Your task to perform on an android device: turn off smart reply in the gmail app Image 0: 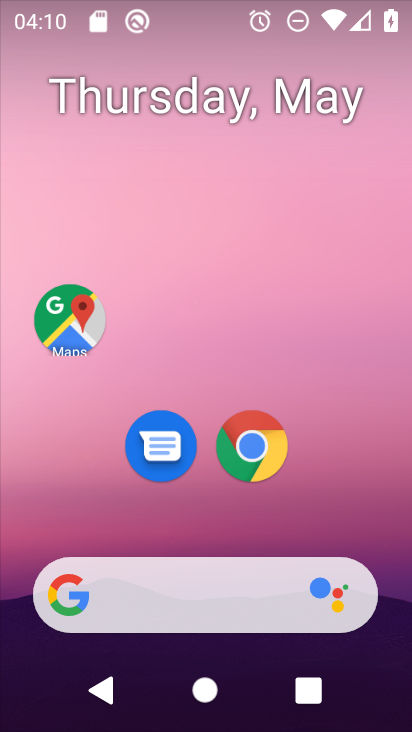
Step 0: drag from (371, 550) to (347, 4)
Your task to perform on an android device: turn off smart reply in the gmail app Image 1: 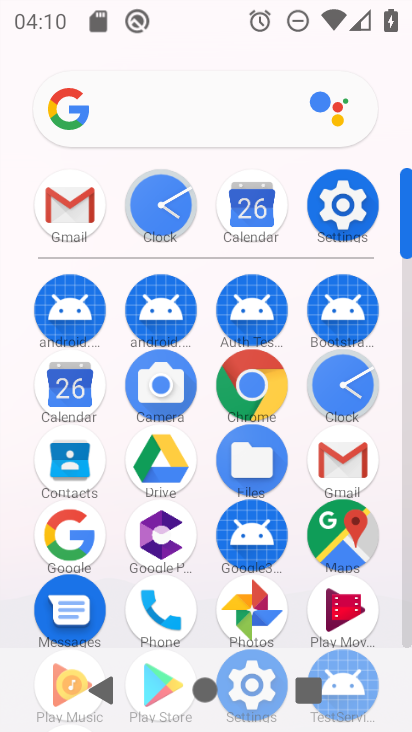
Step 1: click (61, 213)
Your task to perform on an android device: turn off smart reply in the gmail app Image 2: 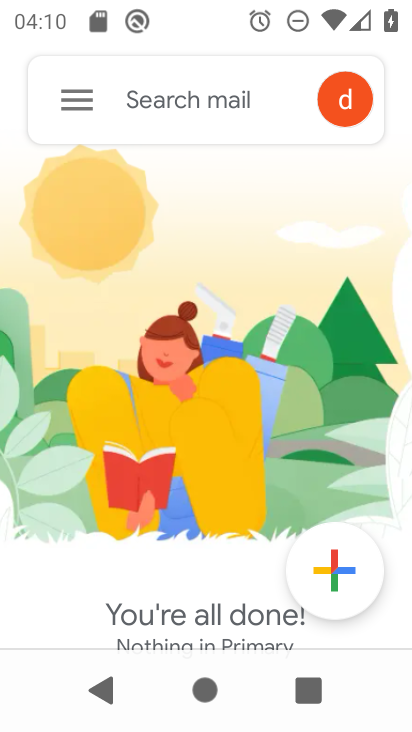
Step 2: click (71, 110)
Your task to perform on an android device: turn off smart reply in the gmail app Image 3: 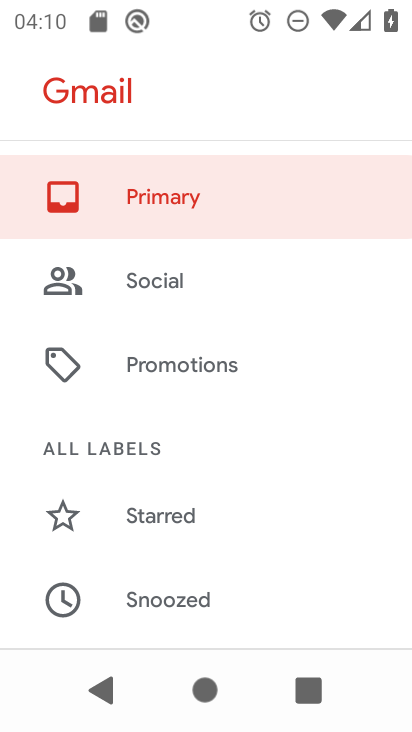
Step 3: drag from (287, 590) to (262, 109)
Your task to perform on an android device: turn off smart reply in the gmail app Image 4: 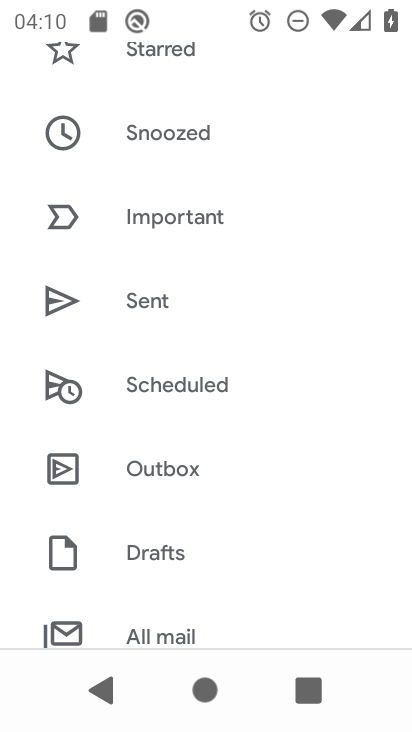
Step 4: drag from (271, 542) to (247, 52)
Your task to perform on an android device: turn off smart reply in the gmail app Image 5: 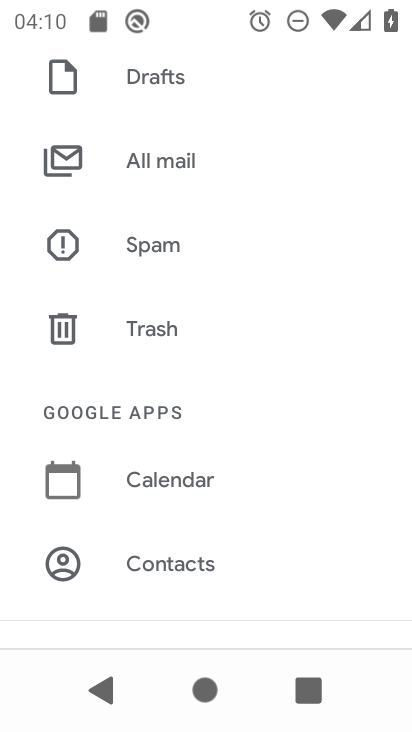
Step 5: drag from (205, 483) to (196, 97)
Your task to perform on an android device: turn off smart reply in the gmail app Image 6: 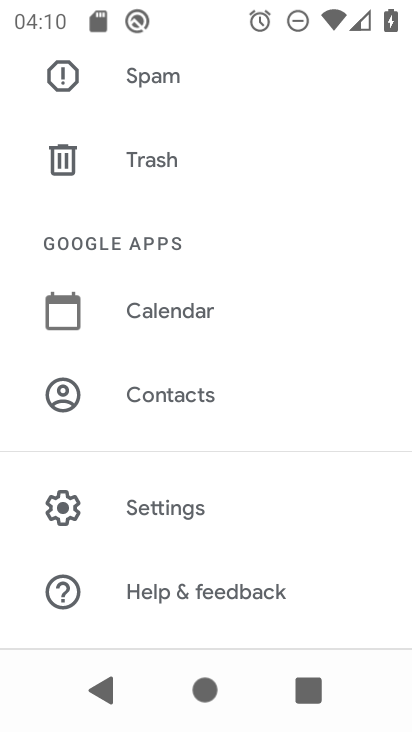
Step 6: click (176, 517)
Your task to perform on an android device: turn off smart reply in the gmail app Image 7: 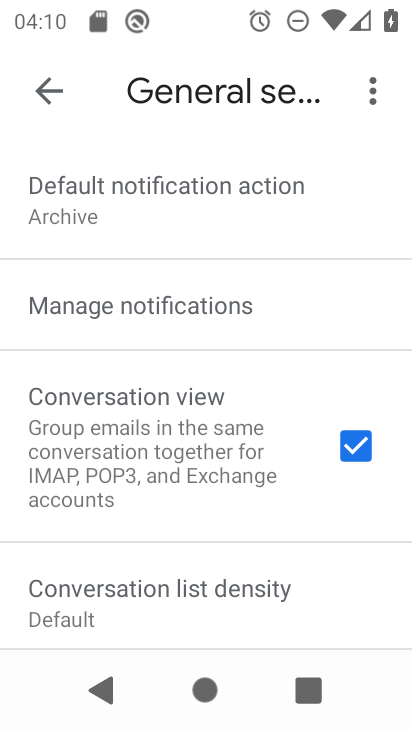
Step 7: click (45, 91)
Your task to perform on an android device: turn off smart reply in the gmail app Image 8: 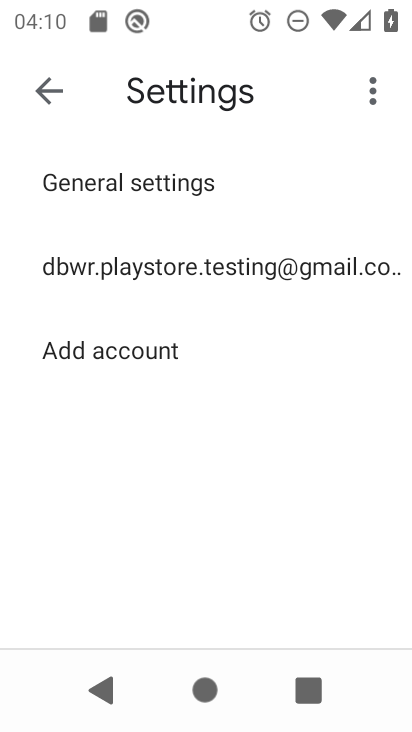
Step 8: click (104, 270)
Your task to perform on an android device: turn off smart reply in the gmail app Image 9: 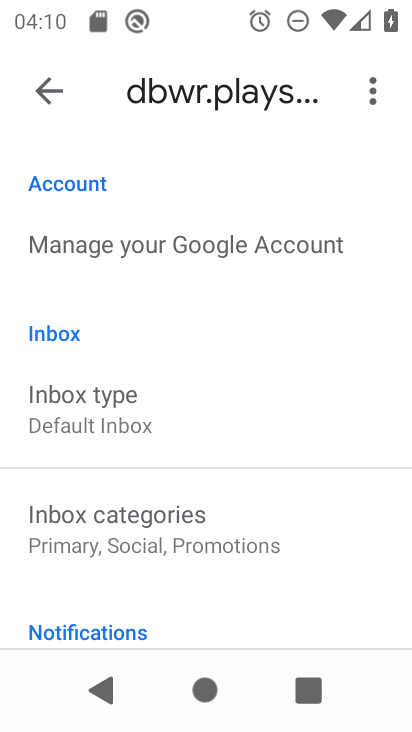
Step 9: drag from (250, 502) to (222, 77)
Your task to perform on an android device: turn off smart reply in the gmail app Image 10: 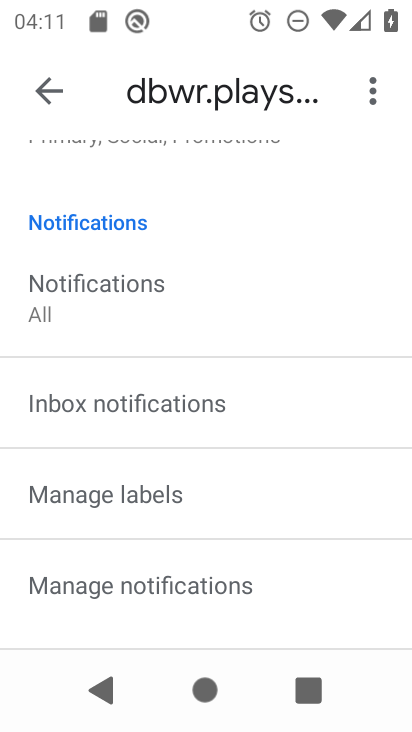
Step 10: drag from (196, 516) to (172, 114)
Your task to perform on an android device: turn off smart reply in the gmail app Image 11: 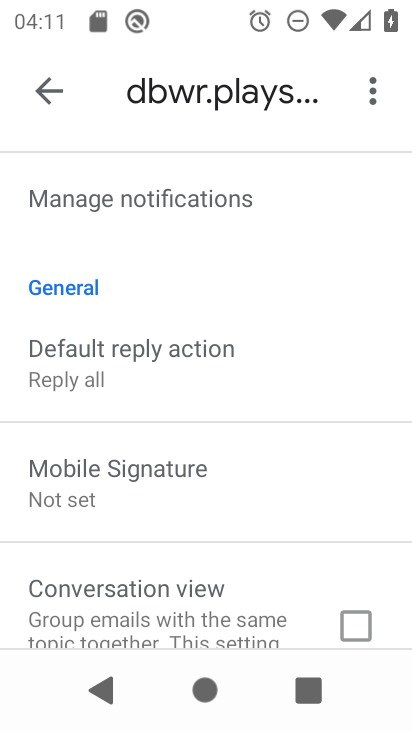
Step 11: drag from (195, 529) to (147, 64)
Your task to perform on an android device: turn off smart reply in the gmail app Image 12: 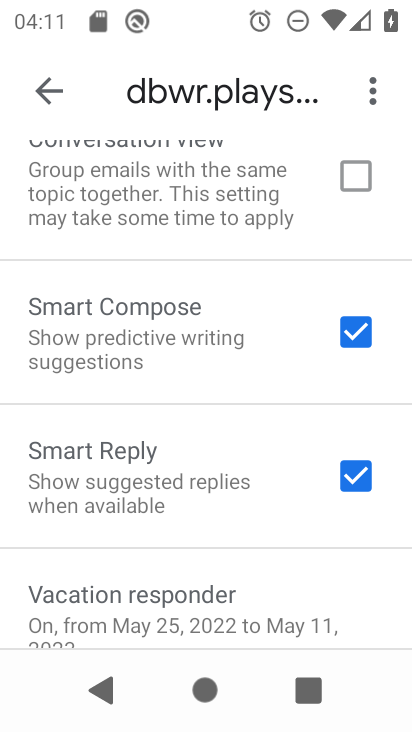
Step 12: click (349, 468)
Your task to perform on an android device: turn off smart reply in the gmail app Image 13: 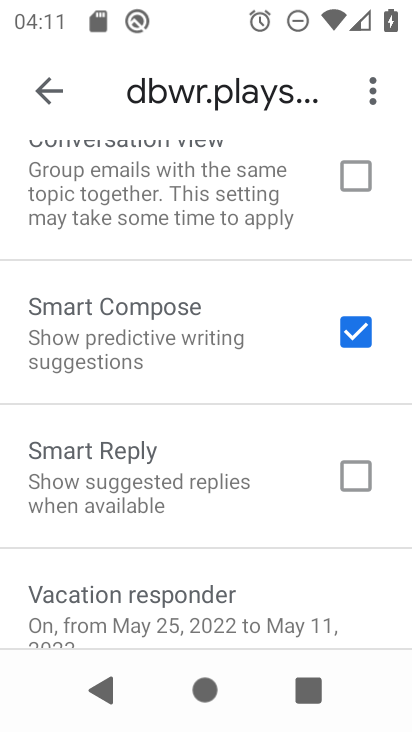
Step 13: task complete